Your task to perform on an android device: Open the calendar and show me this week's events? Image 0: 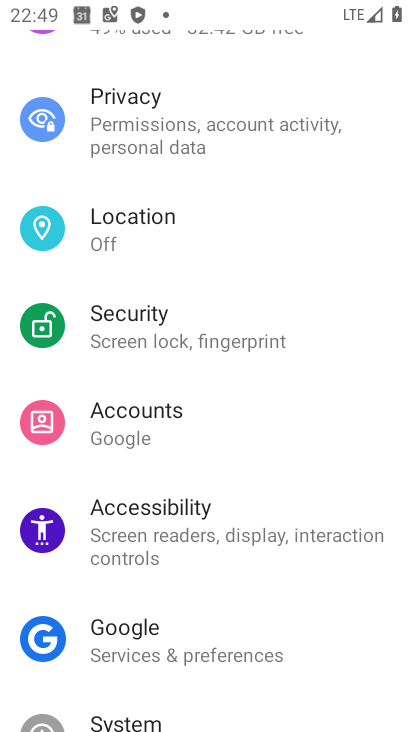
Step 0: press home button
Your task to perform on an android device: Open the calendar and show me this week's events? Image 1: 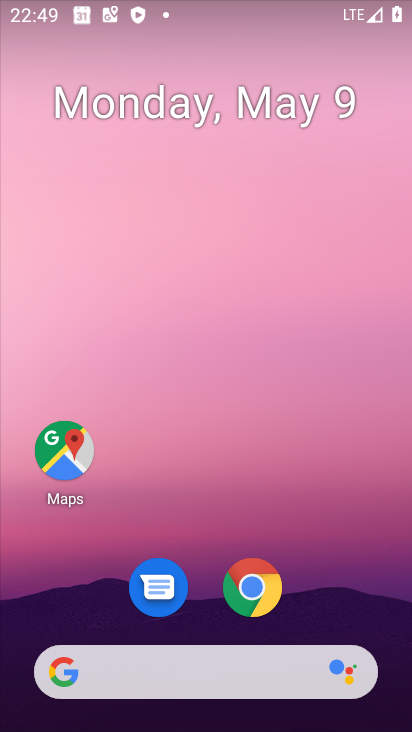
Step 1: click (242, 88)
Your task to perform on an android device: Open the calendar and show me this week's events? Image 2: 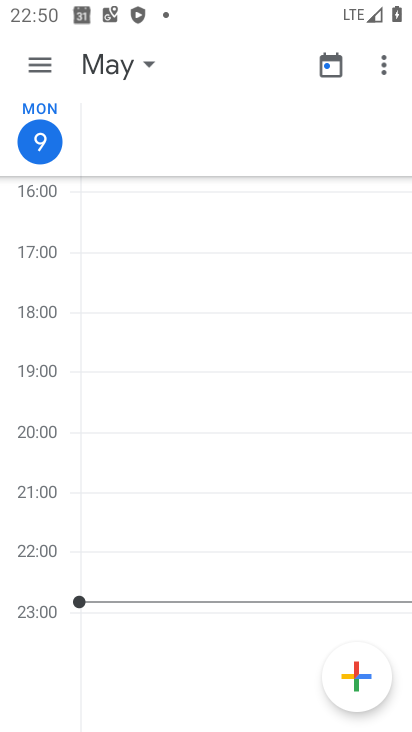
Step 2: press home button
Your task to perform on an android device: Open the calendar and show me this week's events? Image 3: 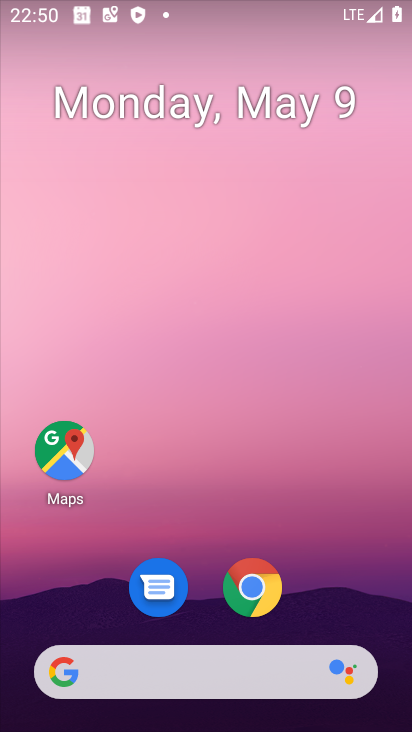
Step 3: click (250, 88)
Your task to perform on an android device: Open the calendar and show me this week's events? Image 4: 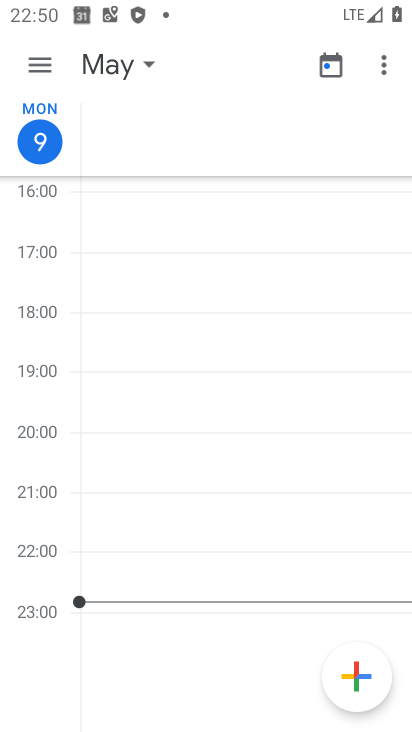
Step 4: click (141, 81)
Your task to perform on an android device: Open the calendar and show me this week's events? Image 5: 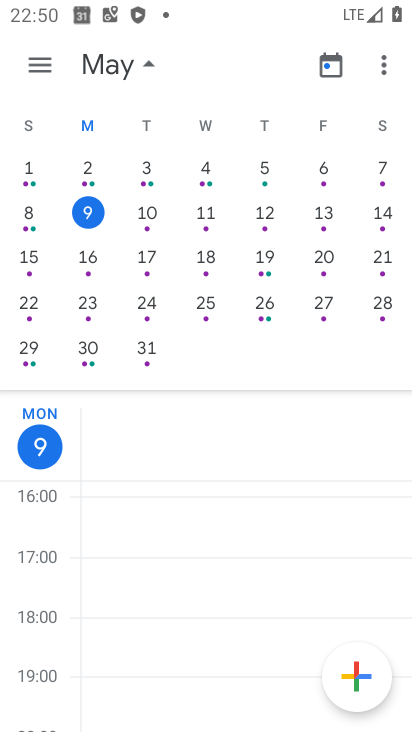
Step 5: click (151, 221)
Your task to perform on an android device: Open the calendar and show me this week's events? Image 6: 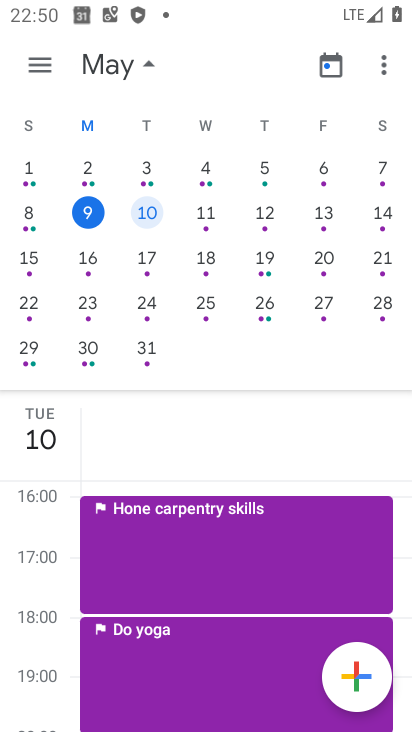
Step 6: task complete